Your task to perform on an android device: toggle airplane mode Image 0: 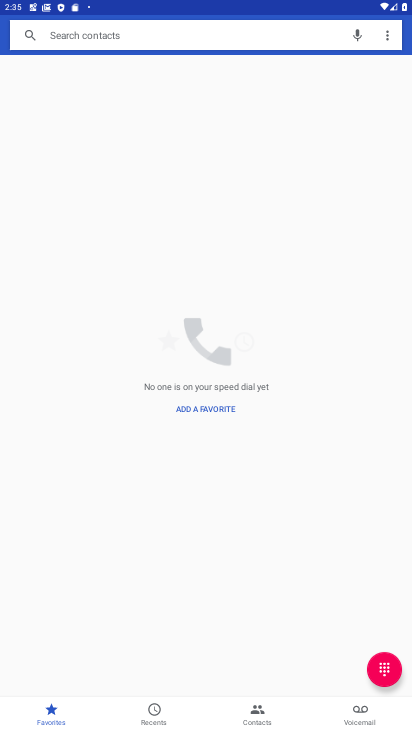
Step 0: press home button
Your task to perform on an android device: toggle airplane mode Image 1: 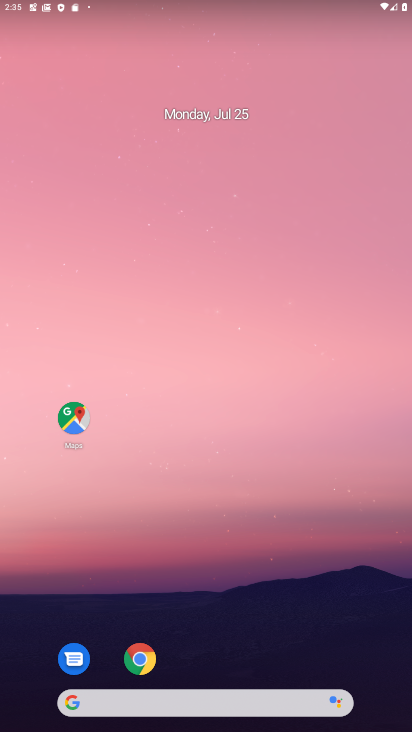
Step 1: drag from (221, 704) to (259, 90)
Your task to perform on an android device: toggle airplane mode Image 2: 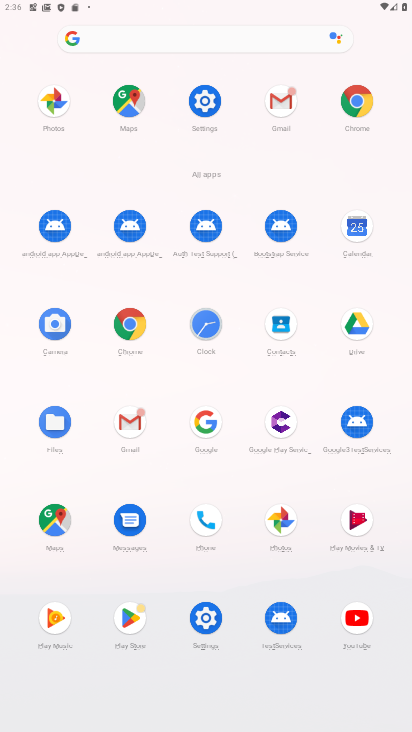
Step 2: click (215, 110)
Your task to perform on an android device: toggle airplane mode Image 3: 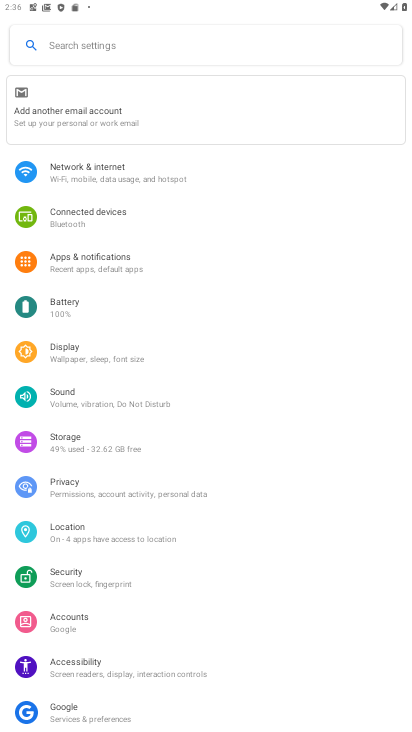
Step 3: click (89, 174)
Your task to perform on an android device: toggle airplane mode Image 4: 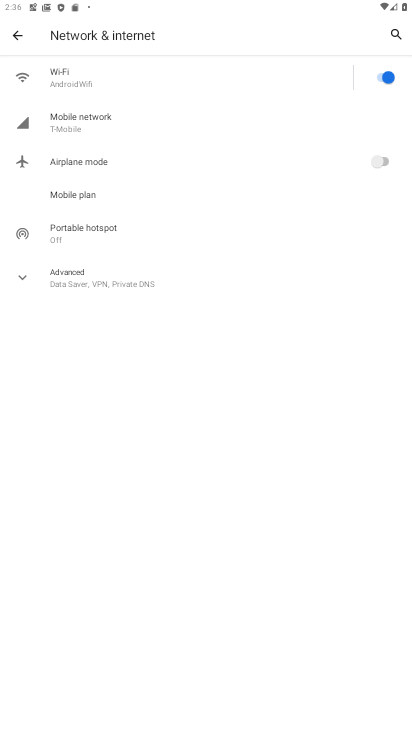
Step 4: click (385, 159)
Your task to perform on an android device: toggle airplane mode Image 5: 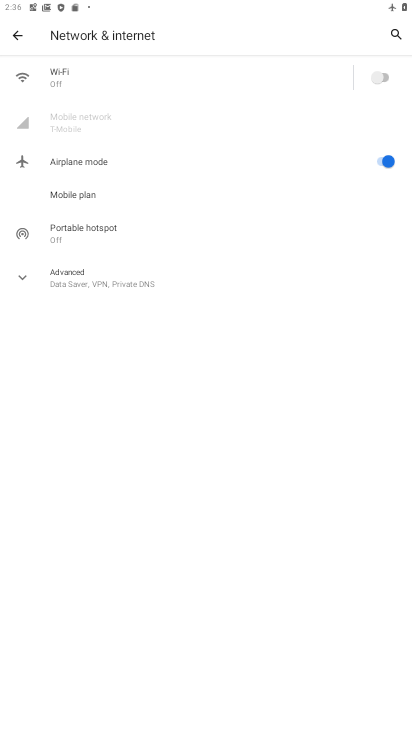
Step 5: task complete